Your task to perform on an android device: see tabs open on other devices in the chrome app Image 0: 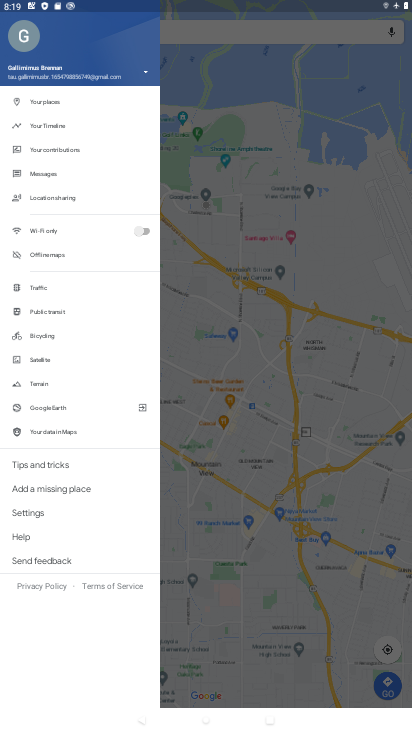
Step 0: press home button
Your task to perform on an android device: see tabs open on other devices in the chrome app Image 1: 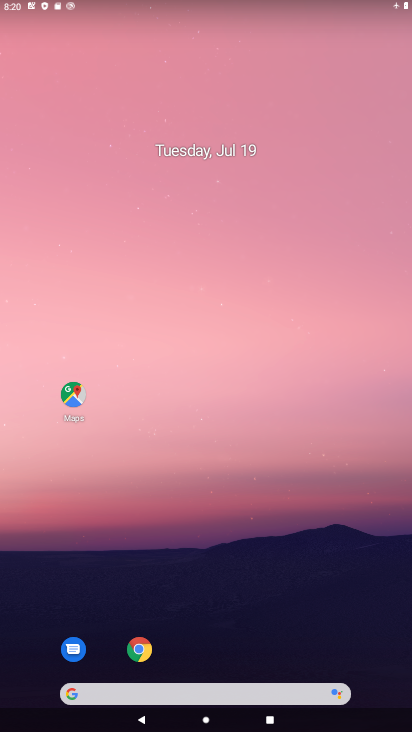
Step 1: click (139, 653)
Your task to perform on an android device: see tabs open on other devices in the chrome app Image 2: 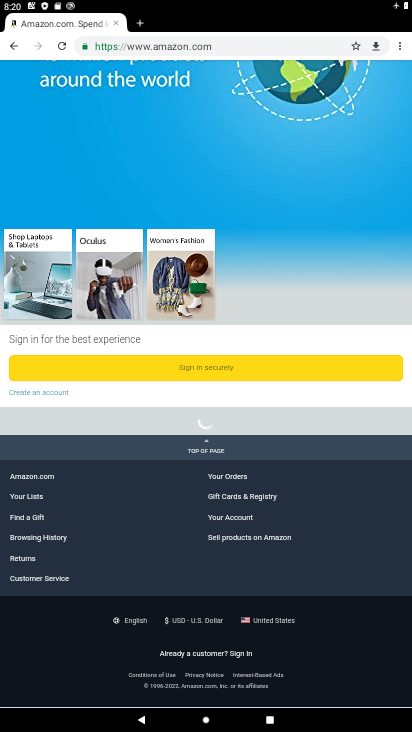
Step 2: click (397, 41)
Your task to perform on an android device: see tabs open on other devices in the chrome app Image 3: 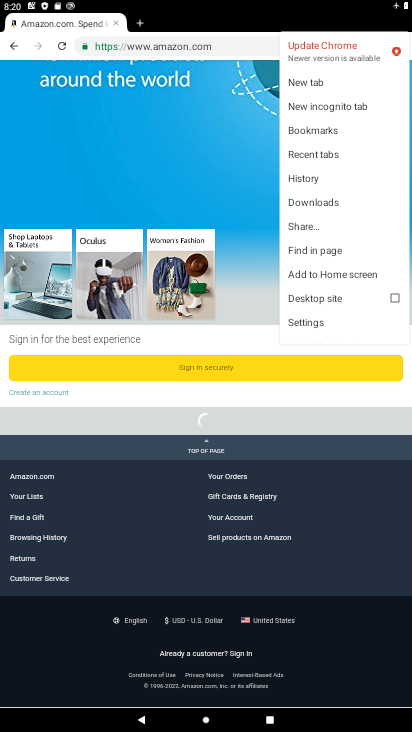
Step 3: click (334, 150)
Your task to perform on an android device: see tabs open on other devices in the chrome app Image 4: 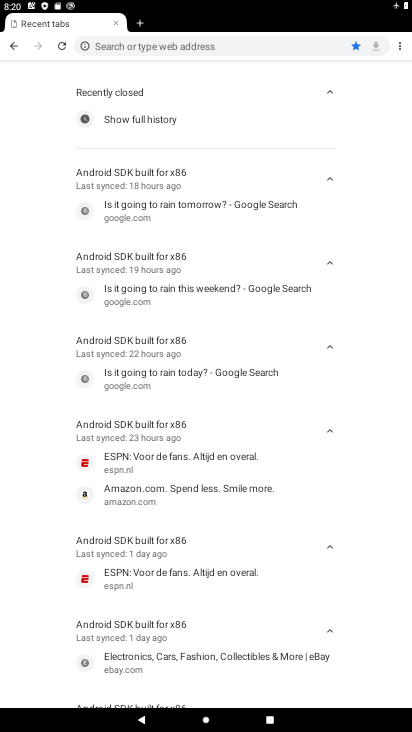
Step 4: task complete